Your task to perform on an android device: empty trash in google photos Image 0: 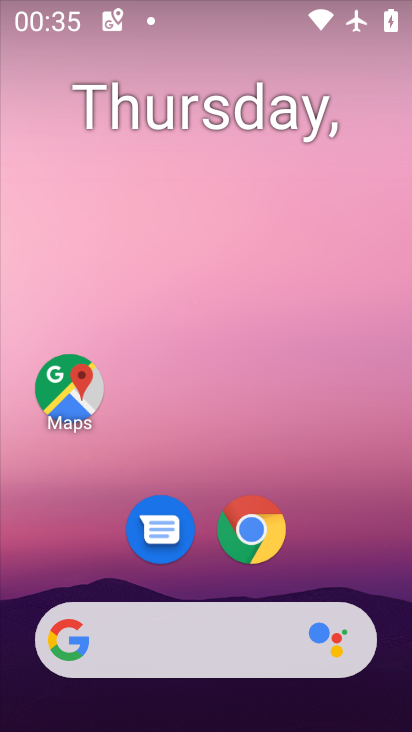
Step 0: drag from (399, 621) to (329, 94)
Your task to perform on an android device: empty trash in google photos Image 1: 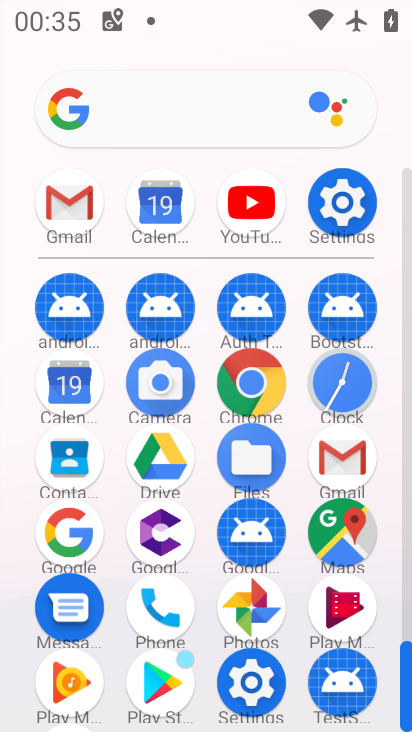
Step 1: click (407, 622)
Your task to perform on an android device: empty trash in google photos Image 2: 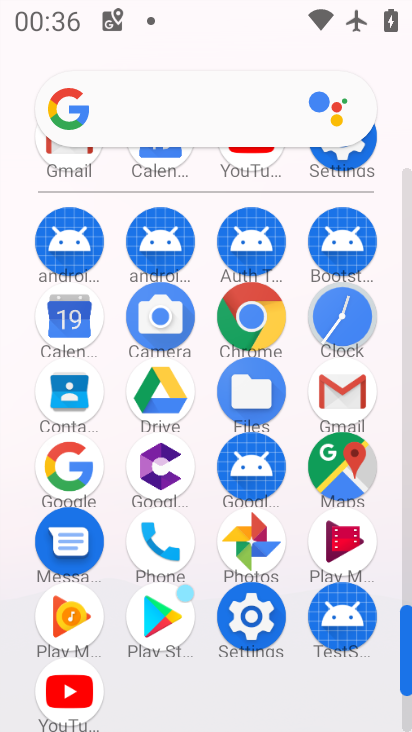
Step 2: click (250, 541)
Your task to perform on an android device: empty trash in google photos Image 3: 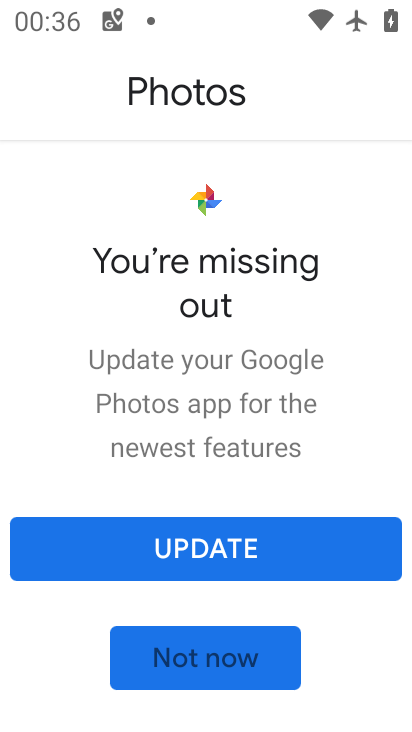
Step 3: click (196, 545)
Your task to perform on an android device: empty trash in google photos Image 4: 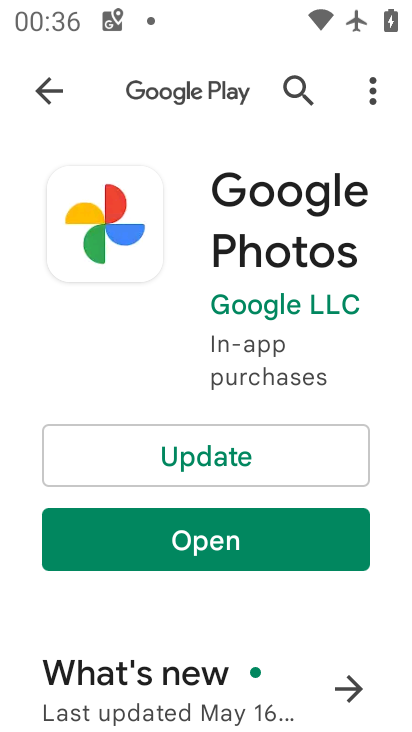
Step 4: click (213, 450)
Your task to perform on an android device: empty trash in google photos Image 5: 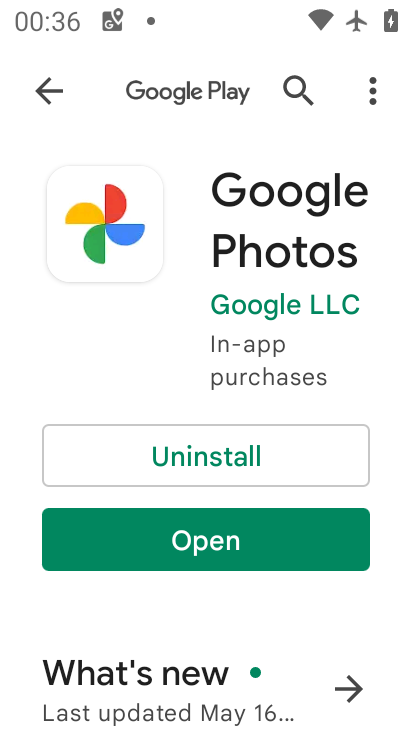
Step 5: click (212, 532)
Your task to perform on an android device: empty trash in google photos Image 6: 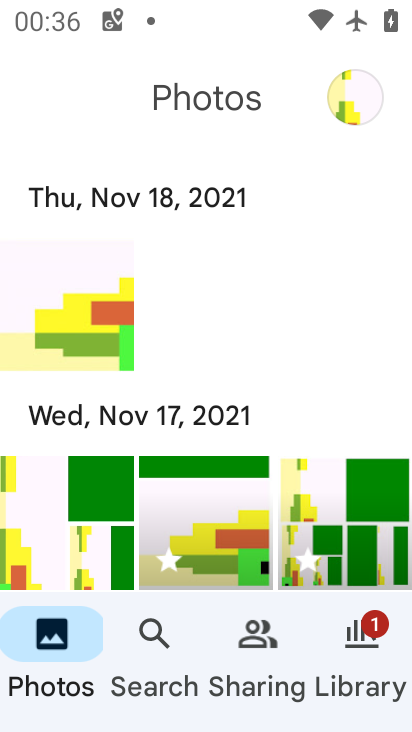
Step 6: click (357, 624)
Your task to perform on an android device: empty trash in google photos Image 7: 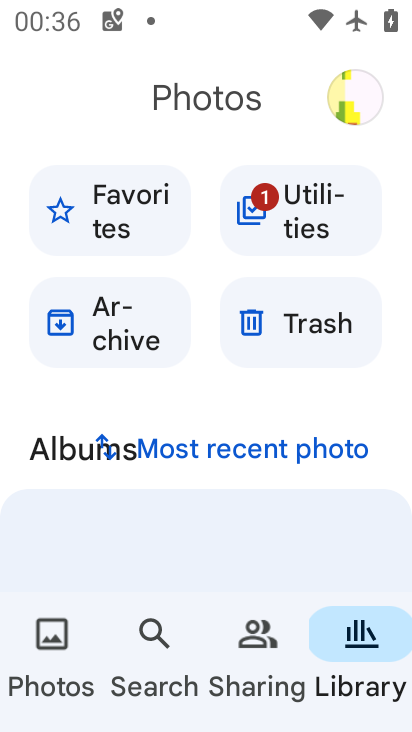
Step 7: click (303, 308)
Your task to perform on an android device: empty trash in google photos Image 8: 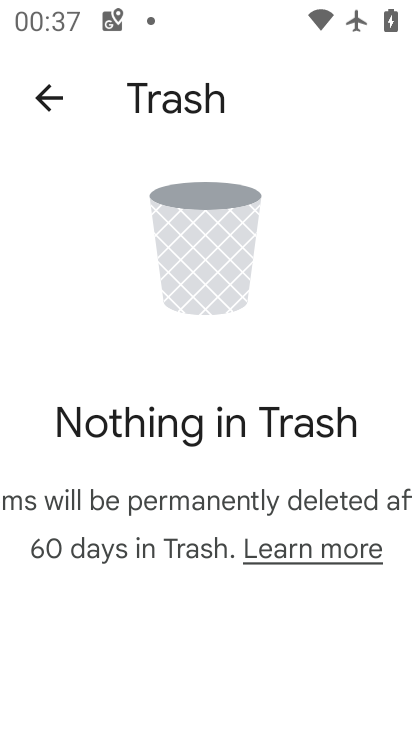
Step 8: task complete